Your task to perform on an android device: turn off location history Image 0: 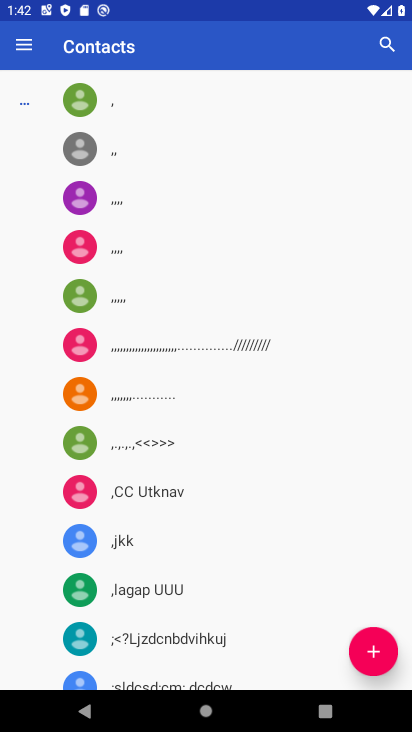
Step 0: drag from (232, 580) to (244, 242)
Your task to perform on an android device: turn off location history Image 1: 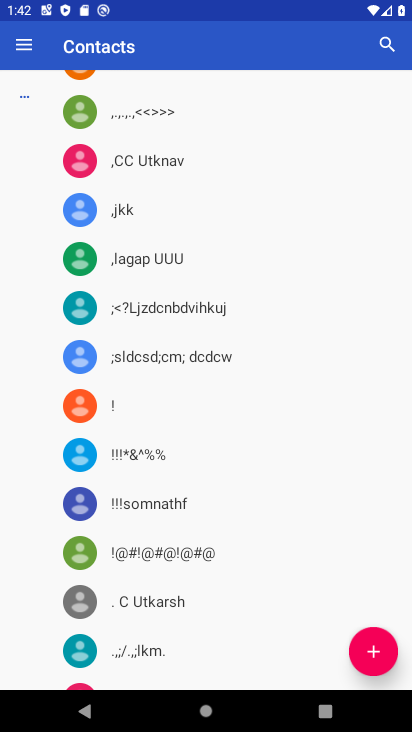
Step 1: drag from (211, 560) to (217, 88)
Your task to perform on an android device: turn off location history Image 2: 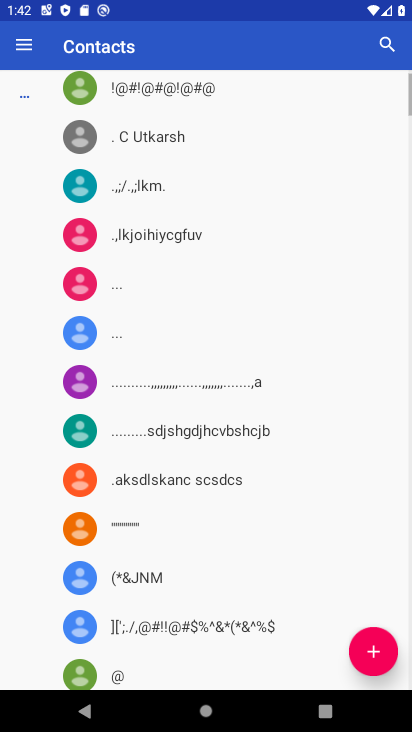
Step 2: drag from (179, 646) to (191, 91)
Your task to perform on an android device: turn off location history Image 3: 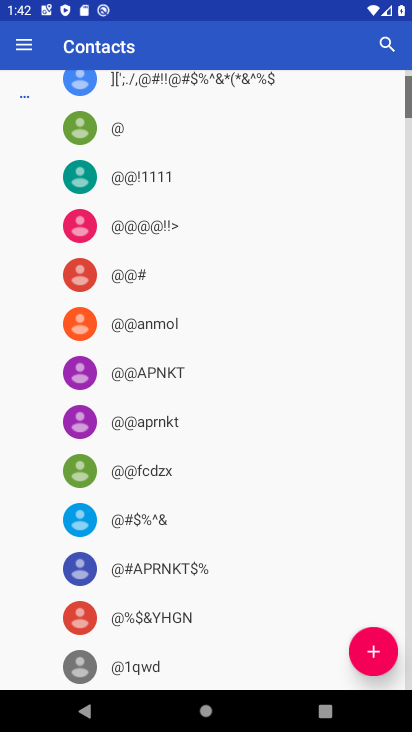
Step 3: drag from (245, 596) to (200, 191)
Your task to perform on an android device: turn off location history Image 4: 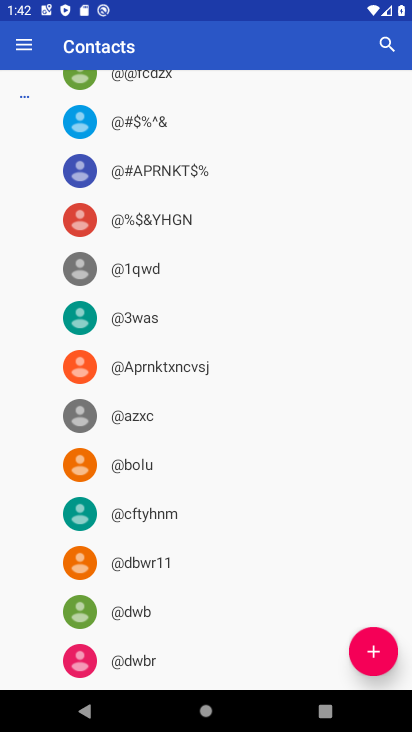
Step 4: drag from (216, 565) to (223, 118)
Your task to perform on an android device: turn off location history Image 5: 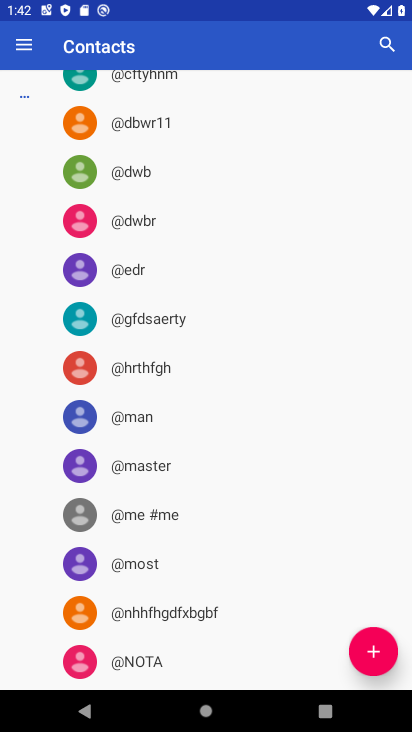
Step 5: drag from (246, 516) to (226, 411)
Your task to perform on an android device: turn off location history Image 6: 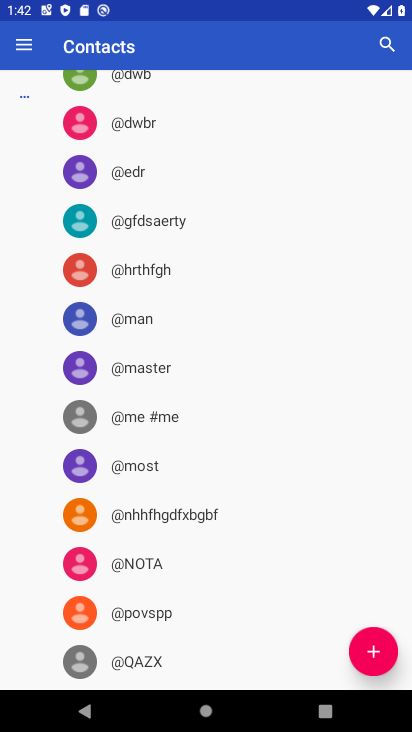
Step 6: drag from (257, 602) to (230, 275)
Your task to perform on an android device: turn off location history Image 7: 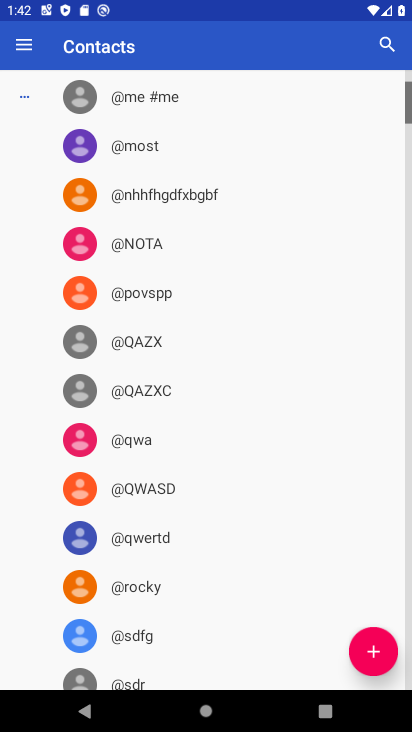
Step 7: drag from (213, 658) to (226, 448)
Your task to perform on an android device: turn off location history Image 8: 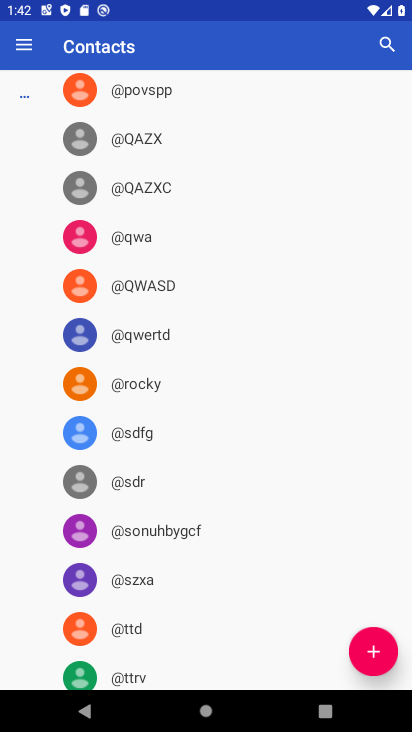
Step 8: drag from (227, 617) to (213, 306)
Your task to perform on an android device: turn off location history Image 9: 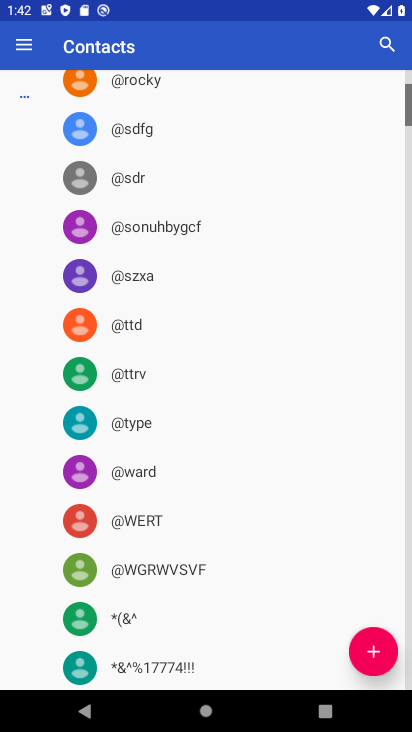
Step 9: drag from (221, 604) to (211, 281)
Your task to perform on an android device: turn off location history Image 10: 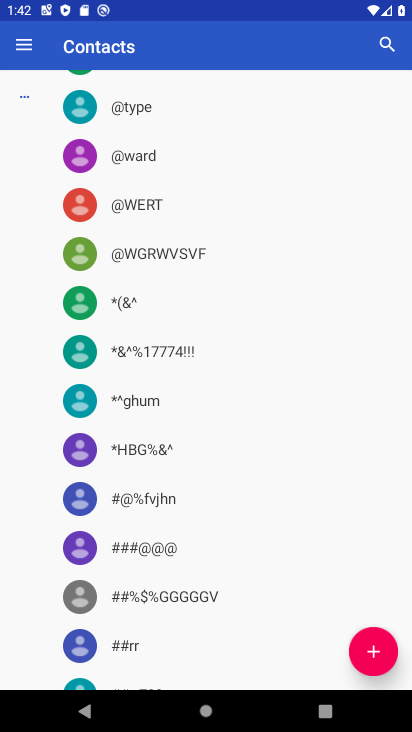
Step 10: drag from (256, 558) to (228, 246)
Your task to perform on an android device: turn off location history Image 11: 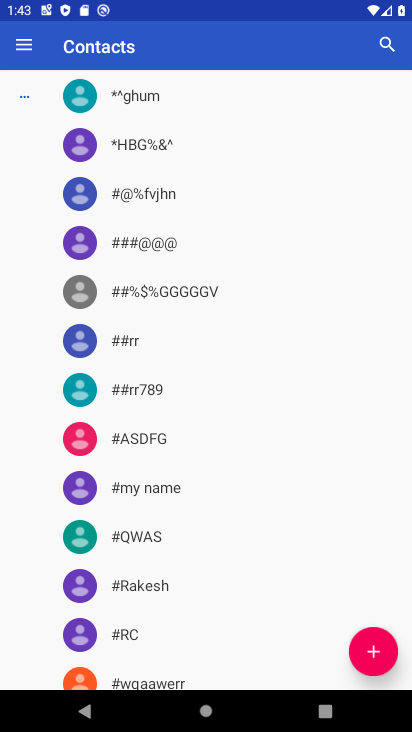
Step 11: drag from (225, 483) to (229, 167)
Your task to perform on an android device: turn off location history Image 12: 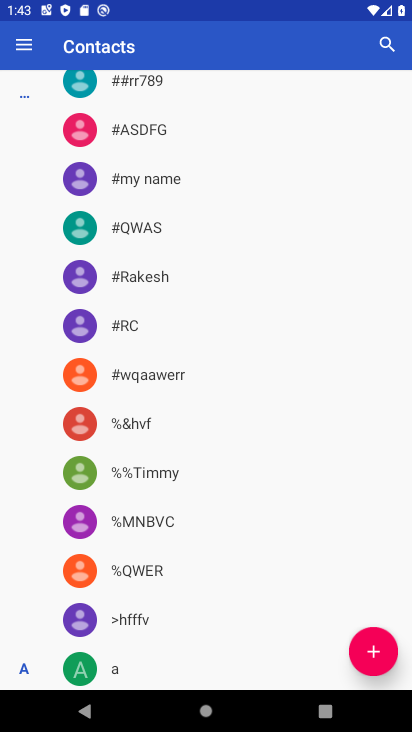
Step 12: drag from (192, 604) to (204, 392)
Your task to perform on an android device: turn off location history Image 13: 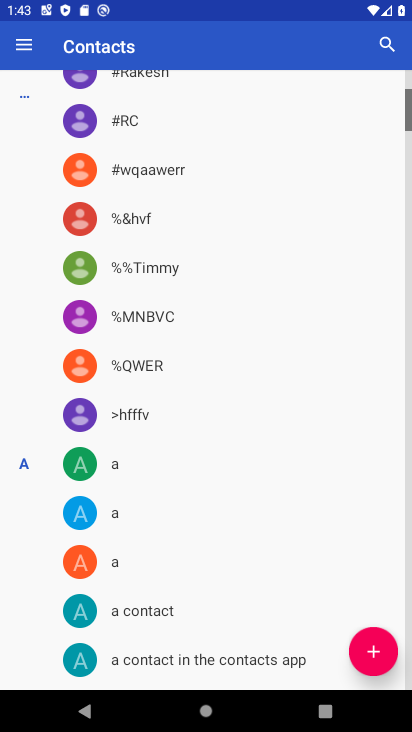
Step 13: drag from (180, 624) to (212, 333)
Your task to perform on an android device: turn off location history Image 14: 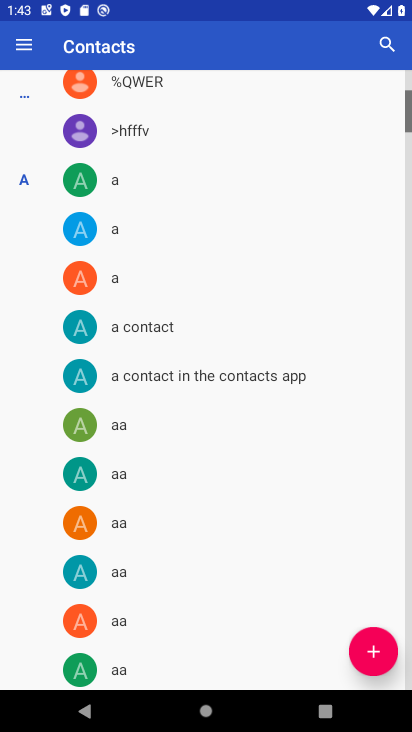
Step 14: drag from (234, 194) to (369, 595)
Your task to perform on an android device: turn off location history Image 15: 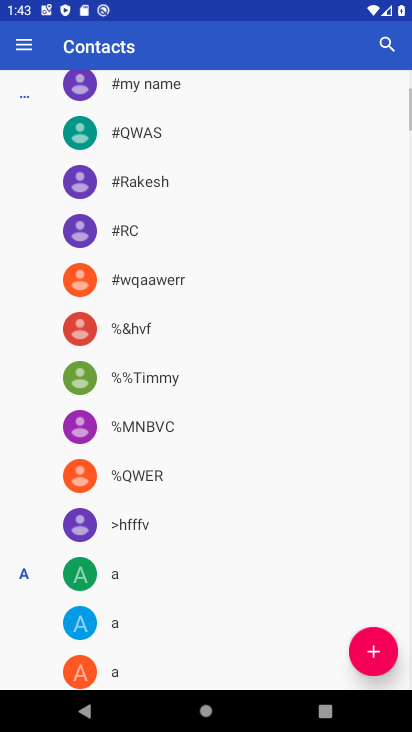
Step 15: click (22, 55)
Your task to perform on an android device: turn off location history Image 16: 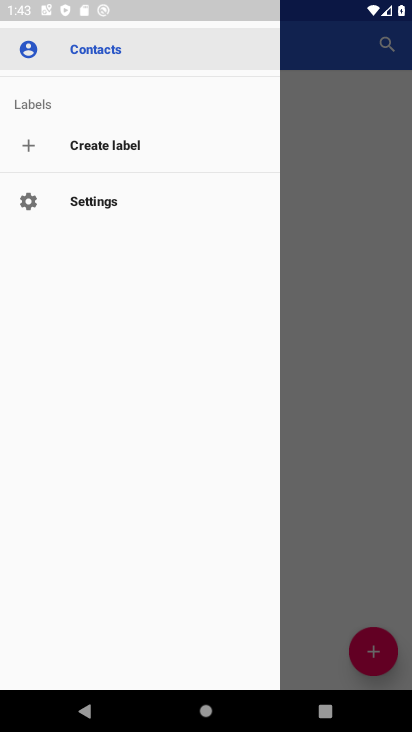
Step 16: click (95, 203)
Your task to perform on an android device: turn off location history Image 17: 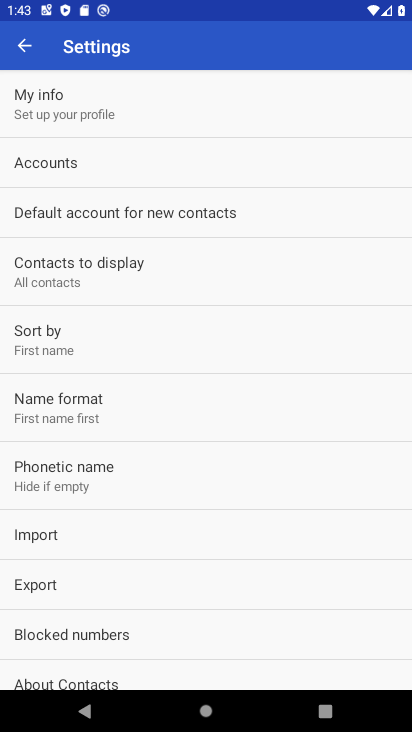
Step 17: drag from (103, 561) to (168, 238)
Your task to perform on an android device: turn off location history Image 18: 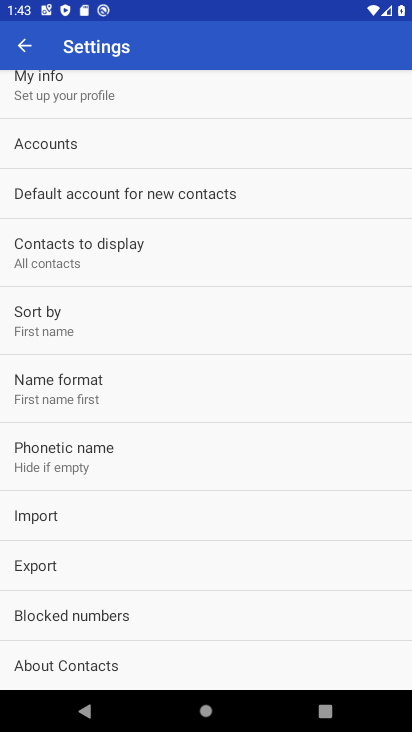
Step 18: drag from (136, 474) to (160, 343)
Your task to perform on an android device: turn off location history Image 19: 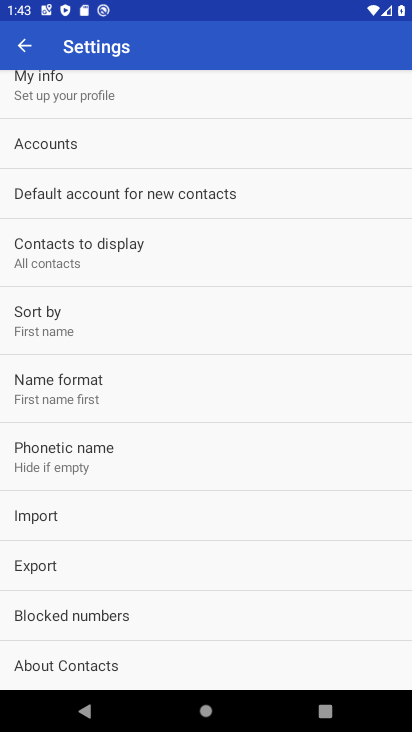
Step 19: drag from (173, 215) to (405, 717)
Your task to perform on an android device: turn off location history Image 20: 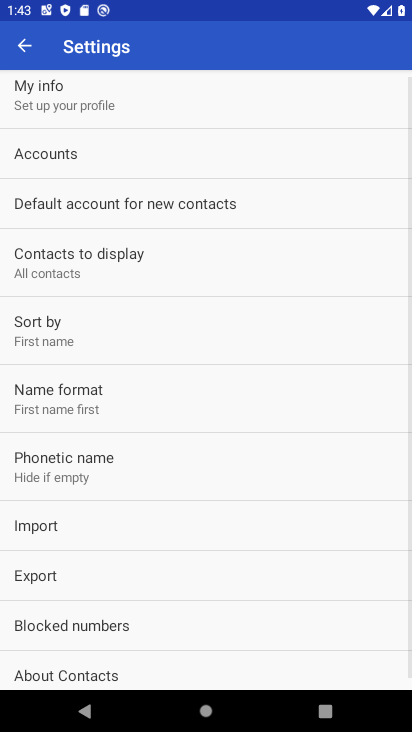
Step 20: press home button
Your task to perform on an android device: turn off location history Image 21: 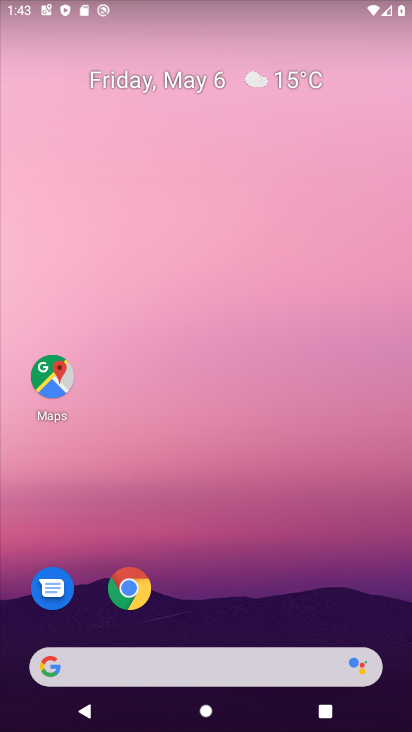
Step 21: drag from (171, 420) to (219, 125)
Your task to perform on an android device: turn off location history Image 22: 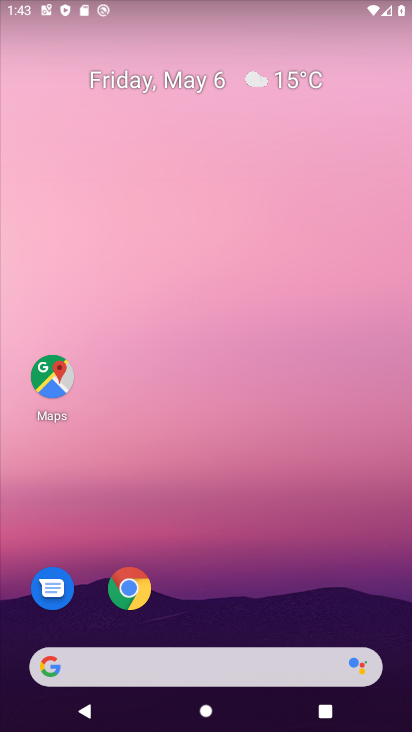
Step 22: drag from (205, 618) to (220, 244)
Your task to perform on an android device: turn off location history Image 23: 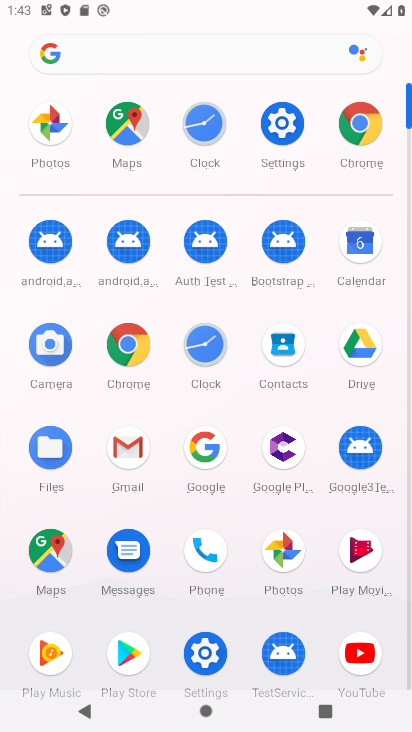
Step 23: click (275, 125)
Your task to perform on an android device: turn off location history Image 24: 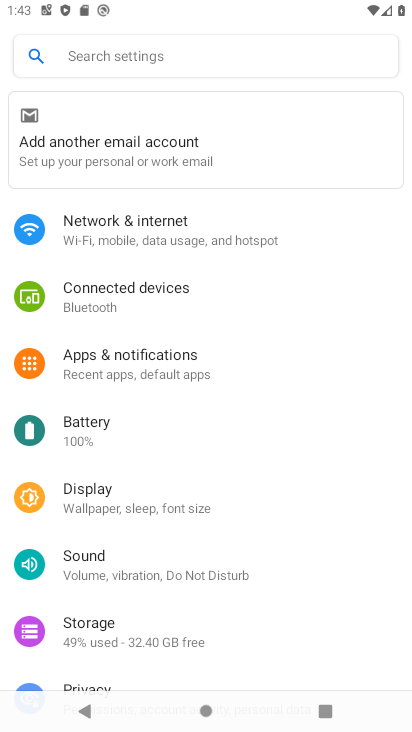
Step 24: drag from (198, 665) to (208, 191)
Your task to perform on an android device: turn off location history Image 25: 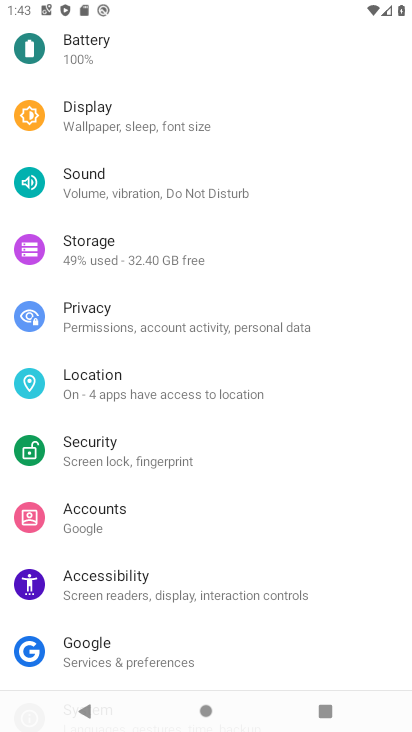
Step 25: drag from (179, 651) to (210, 322)
Your task to perform on an android device: turn off location history Image 26: 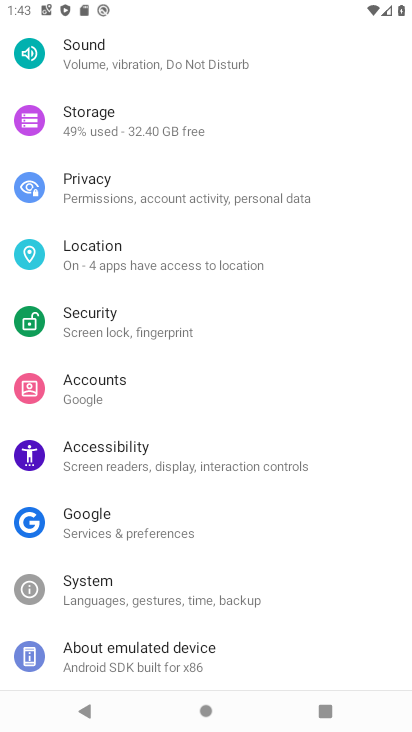
Step 26: drag from (166, 639) to (186, 365)
Your task to perform on an android device: turn off location history Image 27: 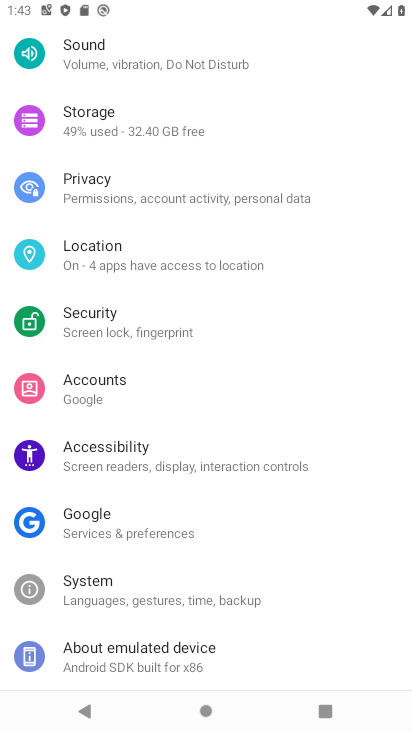
Step 27: drag from (222, 651) to (228, 409)
Your task to perform on an android device: turn off location history Image 28: 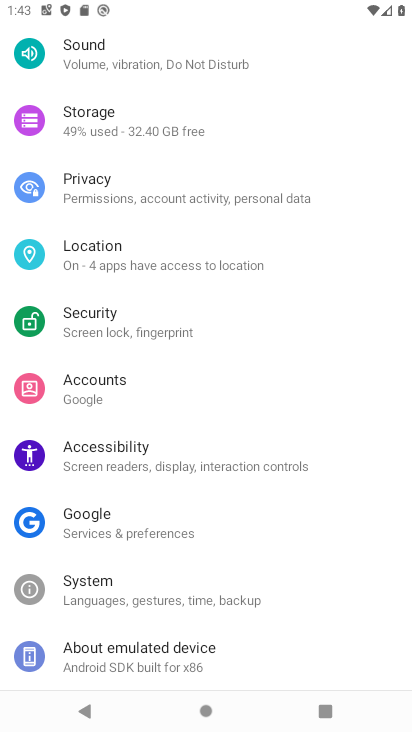
Step 28: drag from (180, 611) to (200, 388)
Your task to perform on an android device: turn off location history Image 29: 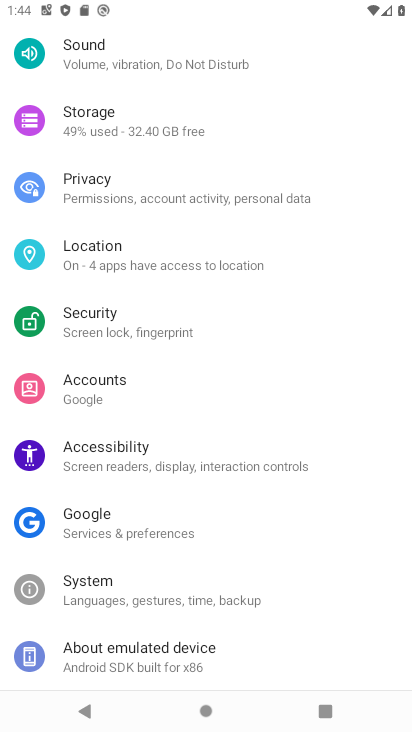
Step 29: click (183, 270)
Your task to perform on an android device: turn off location history Image 30: 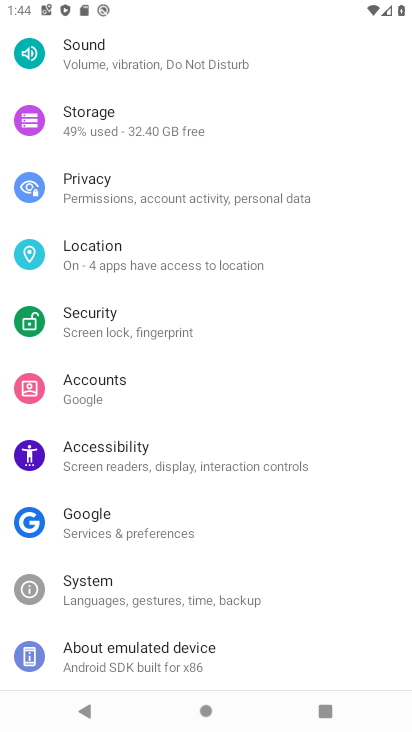
Step 30: click (183, 270)
Your task to perform on an android device: turn off location history Image 31: 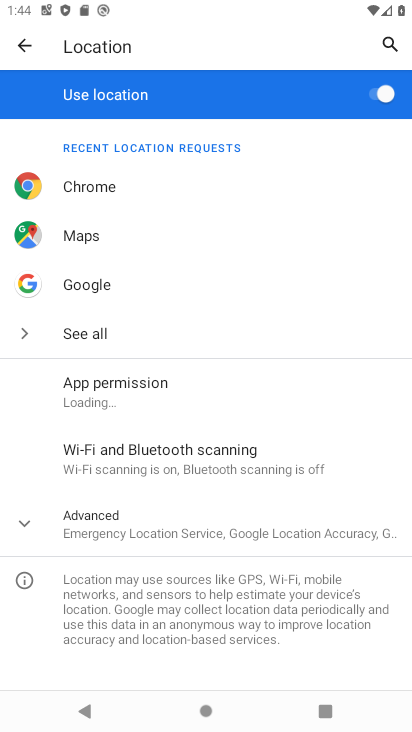
Step 31: drag from (176, 623) to (187, 273)
Your task to perform on an android device: turn off location history Image 32: 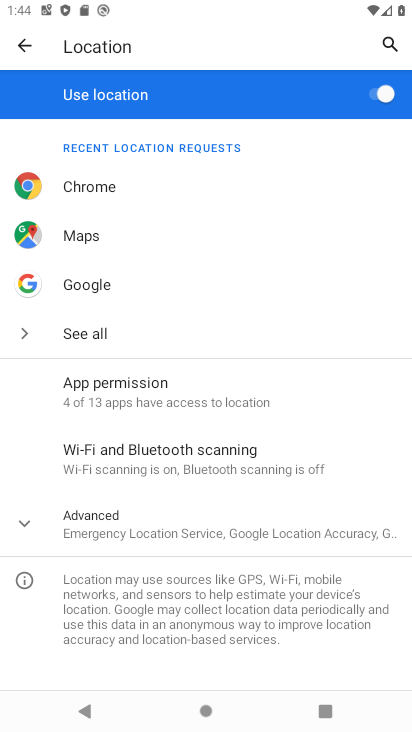
Step 32: click (172, 529)
Your task to perform on an android device: turn off location history Image 33: 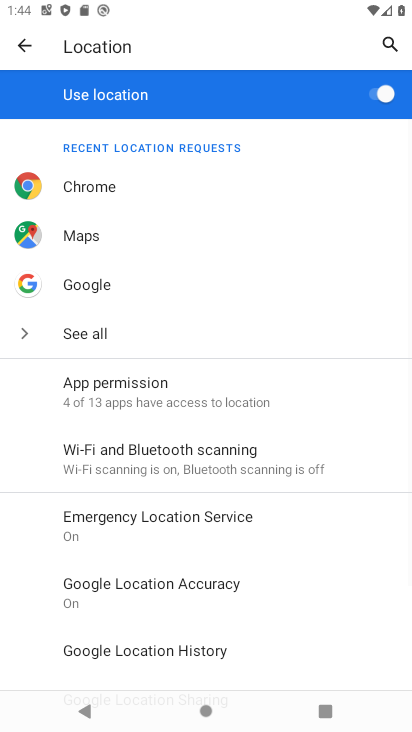
Step 33: drag from (187, 621) to (223, 367)
Your task to perform on an android device: turn off location history Image 34: 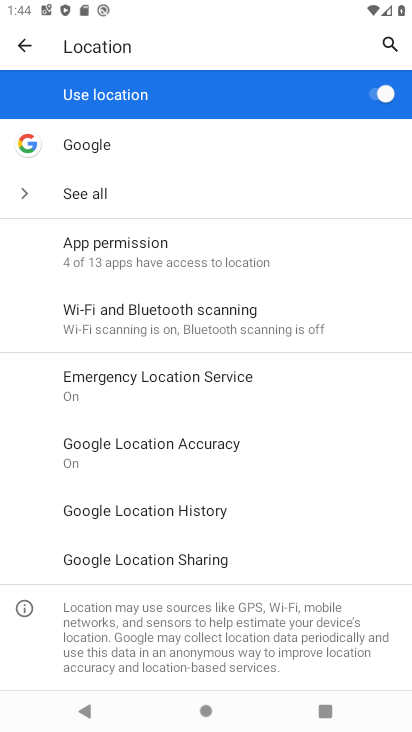
Step 34: click (212, 512)
Your task to perform on an android device: turn off location history Image 35: 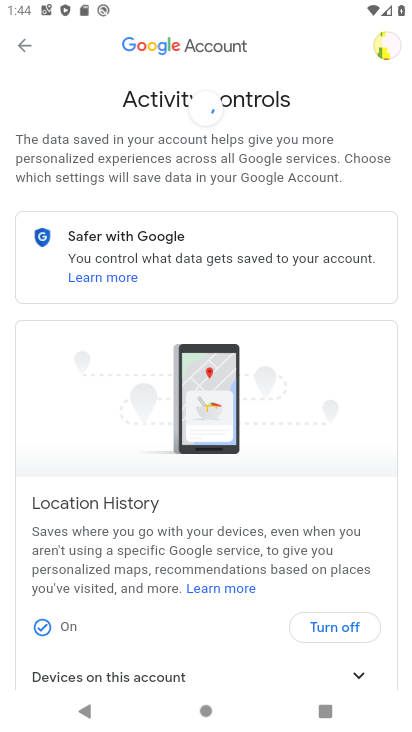
Step 35: drag from (209, 578) to (255, 130)
Your task to perform on an android device: turn off location history Image 36: 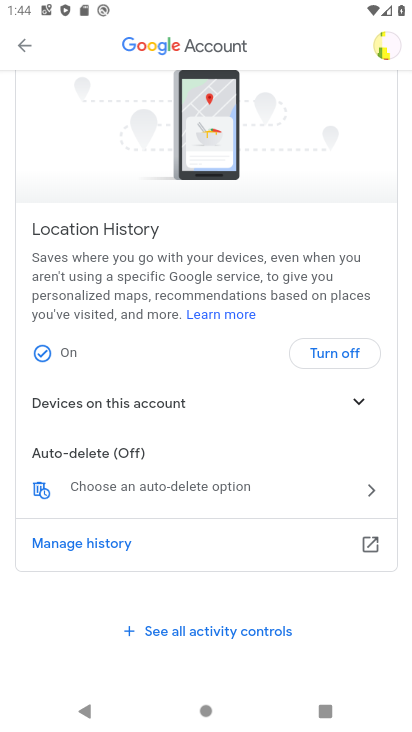
Step 36: click (343, 356)
Your task to perform on an android device: turn off location history Image 37: 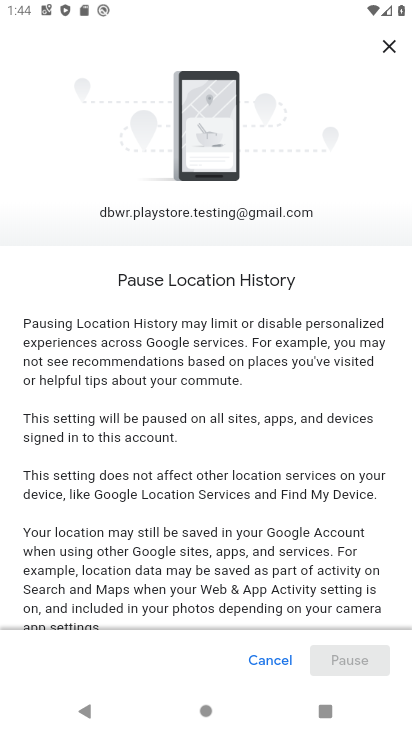
Step 37: drag from (271, 573) to (299, 270)
Your task to perform on an android device: turn off location history Image 38: 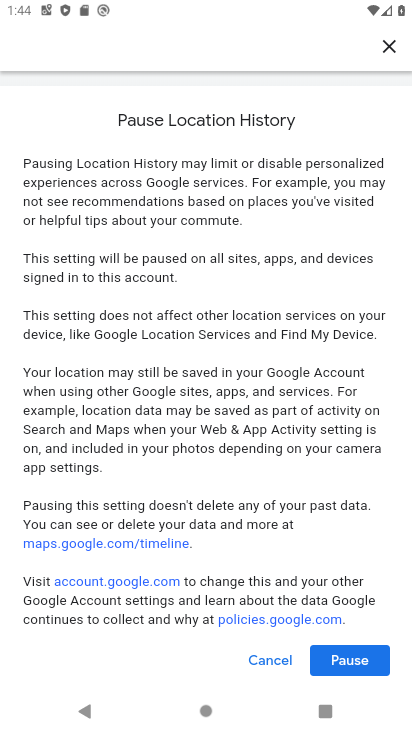
Step 38: drag from (161, 615) to (279, 243)
Your task to perform on an android device: turn off location history Image 39: 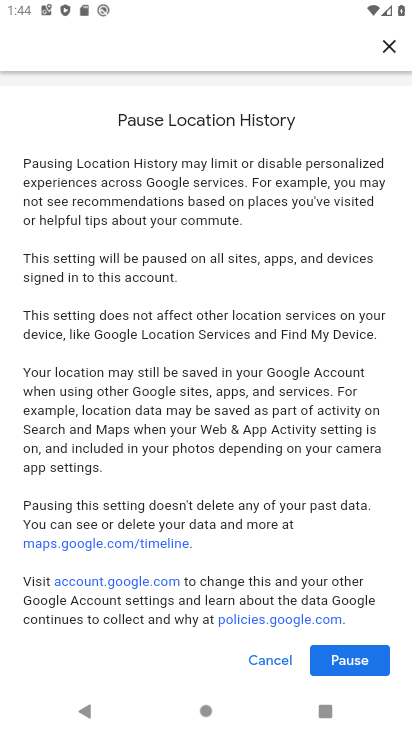
Step 39: click (353, 658)
Your task to perform on an android device: turn off location history Image 40: 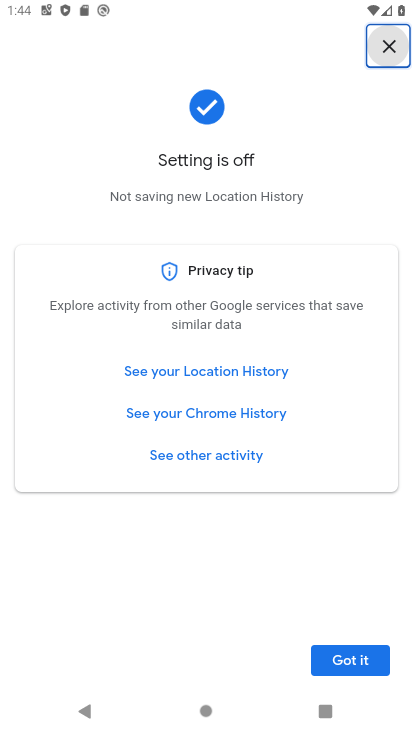
Step 40: click (346, 675)
Your task to perform on an android device: turn off location history Image 41: 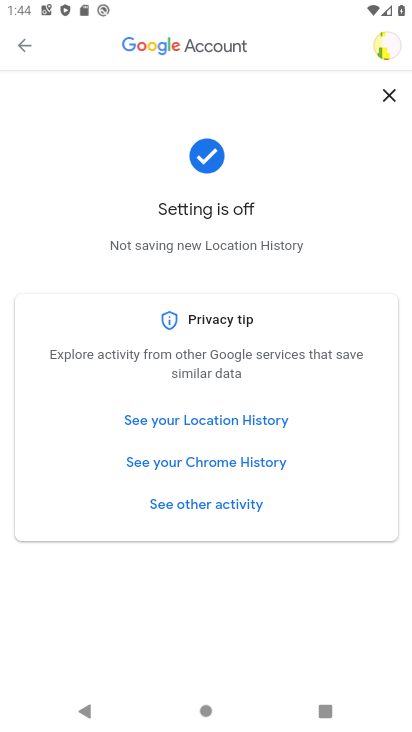
Step 41: task complete